Your task to perform on an android device: turn off notifications settings in the gmail app Image 0: 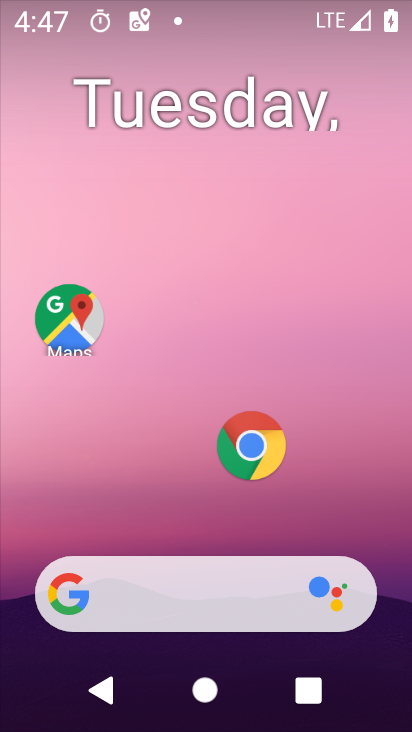
Step 0: drag from (182, 527) to (194, 8)
Your task to perform on an android device: turn off notifications settings in the gmail app Image 1: 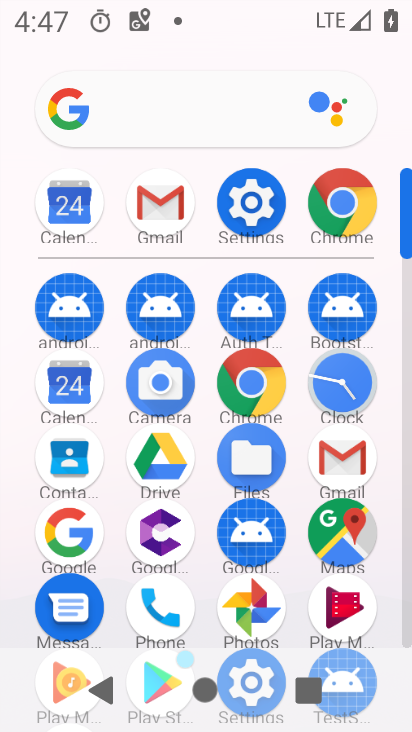
Step 1: click (355, 457)
Your task to perform on an android device: turn off notifications settings in the gmail app Image 2: 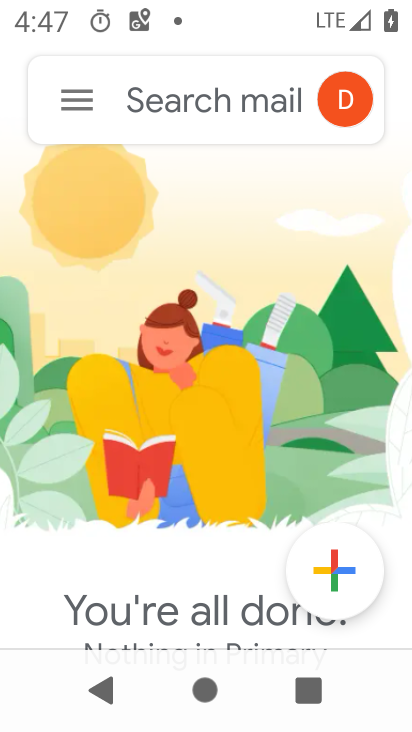
Step 2: click (50, 110)
Your task to perform on an android device: turn off notifications settings in the gmail app Image 3: 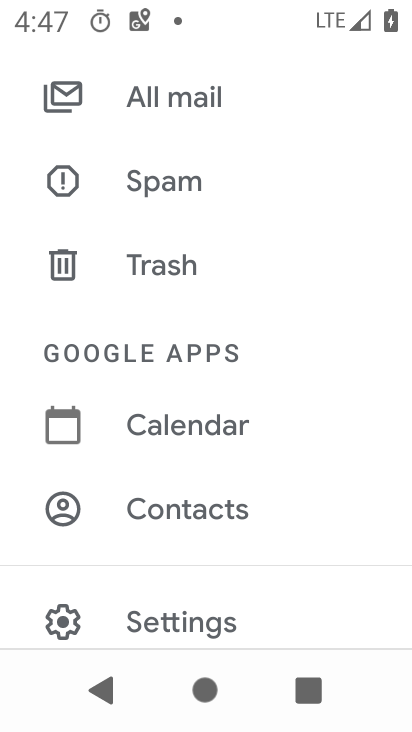
Step 3: click (205, 631)
Your task to perform on an android device: turn off notifications settings in the gmail app Image 4: 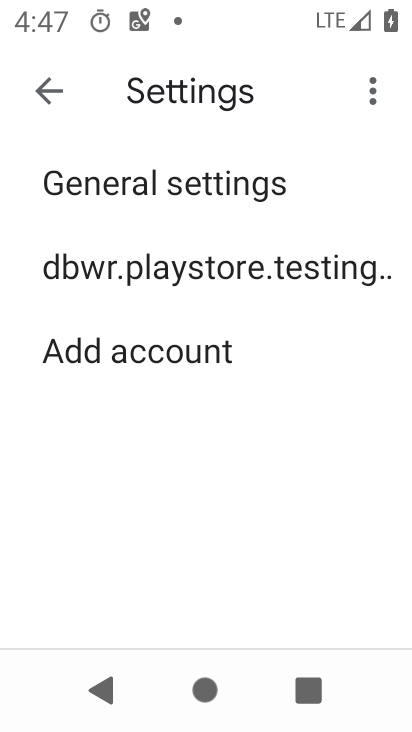
Step 4: click (168, 178)
Your task to perform on an android device: turn off notifications settings in the gmail app Image 5: 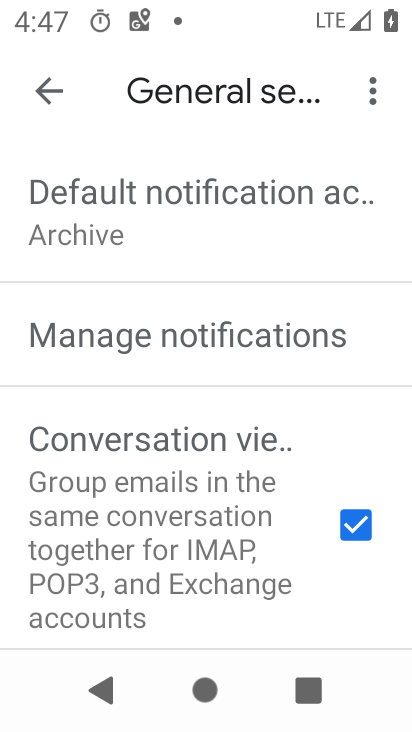
Step 5: click (179, 336)
Your task to perform on an android device: turn off notifications settings in the gmail app Image 6: 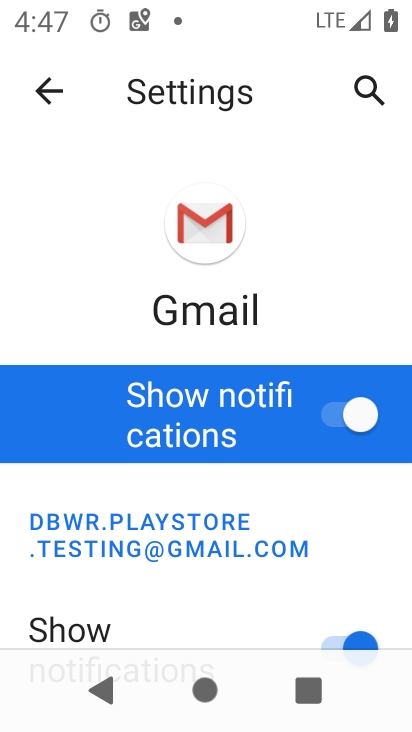
Step 6: drag from (216, 480) to (225, 304)
Your task to perform on an android device: turn off notifications settings in the gmail app Image 7: 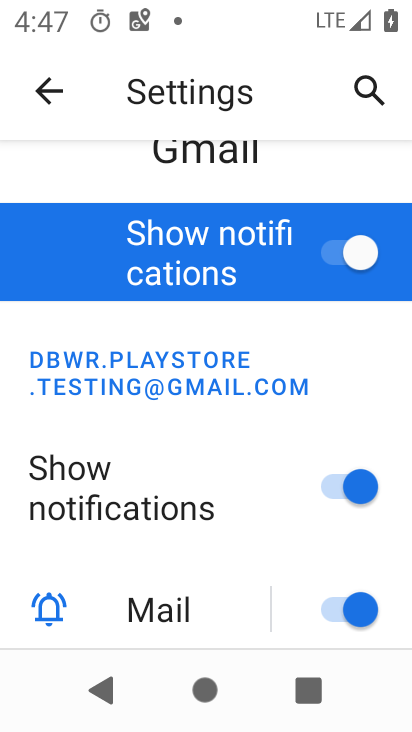
Step 7: click (319, 259)
Your task to perform on an android device: turn off notifications settings in the gmail app Image 8: 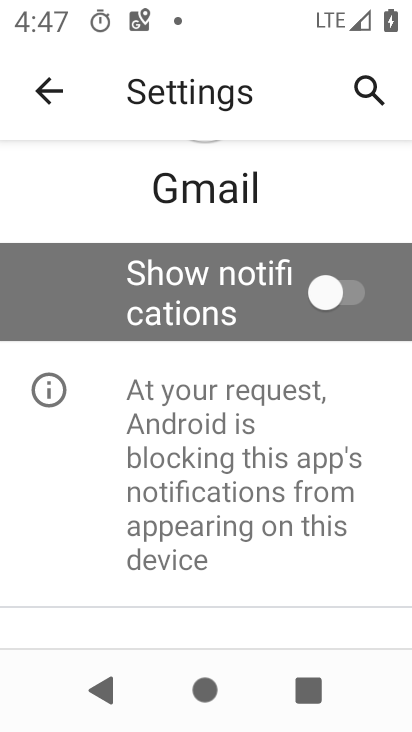
Step 8: task complete